Your task to perform on an android device: Go to Reddit.com Image 0: 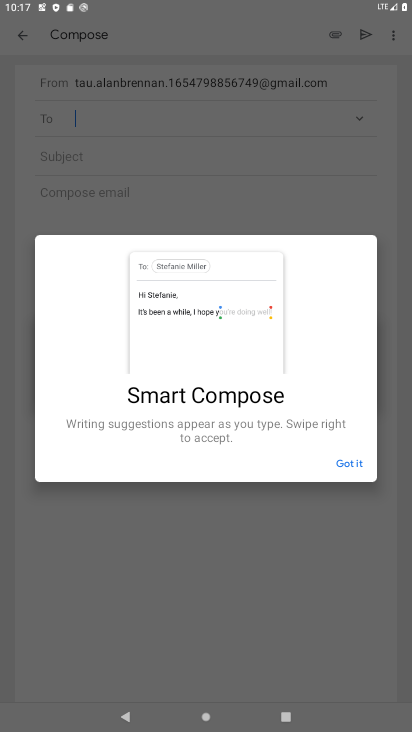
Step 0: press home button
Your task to perform on an android device: Go to Reddit.com Image 1: 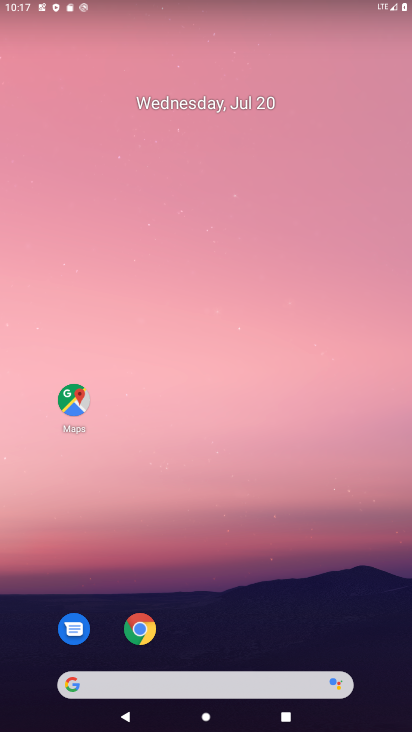
Step 1: click (147, 620)
Your task to perform on an android device: Go to Reddit.com Image 2: 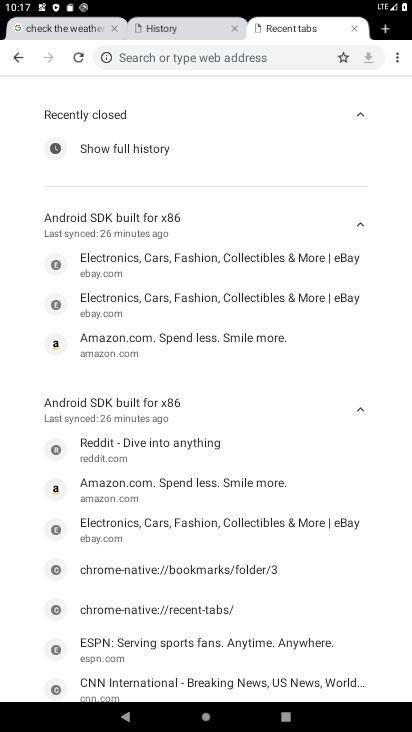
Step 2: click (214, 47)
Your task to perform on an android device: Go to Reddit.com Image 3: 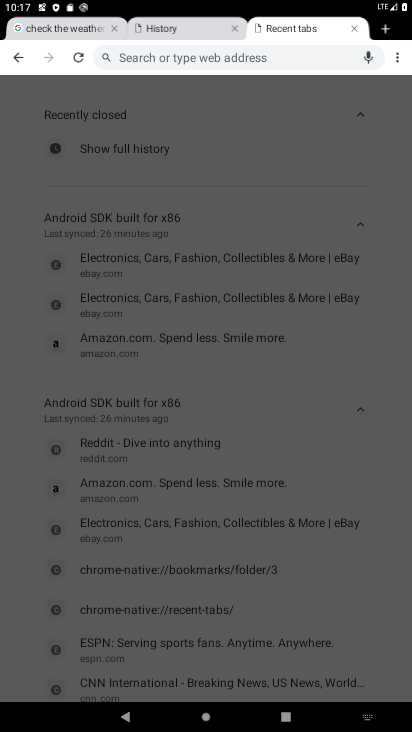
Step 3: type "Reddit.com"
Your task to perform on an android device: Go to Reddit.com Image 4: 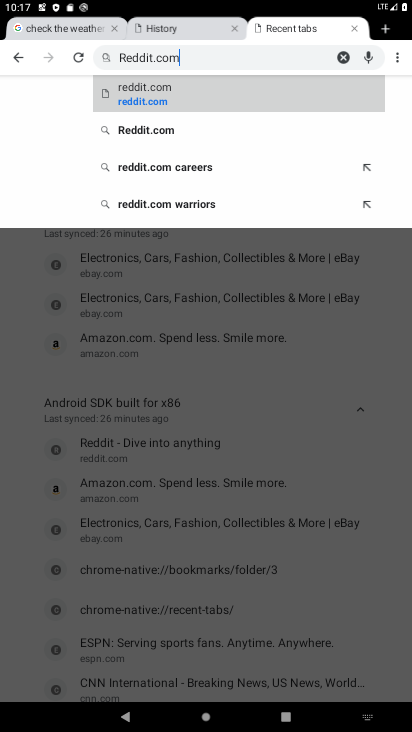
Step 4: type ""
Your task to perform on an android device: Go to Reddit.com Image 5: 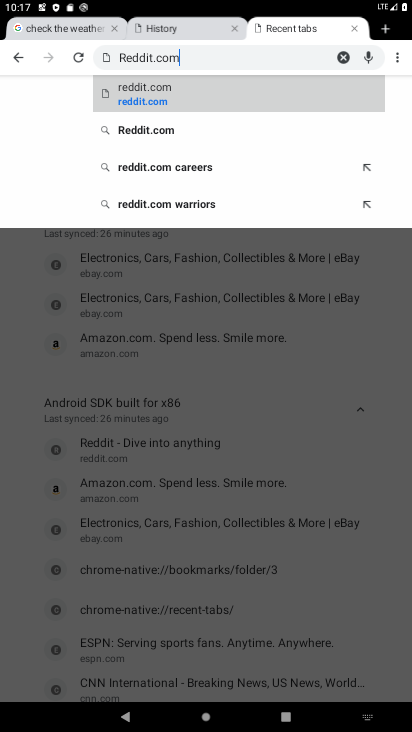
Step 5: click (183, 87)
Your task to perform on an android device: Go to Reddit.com Image 6: 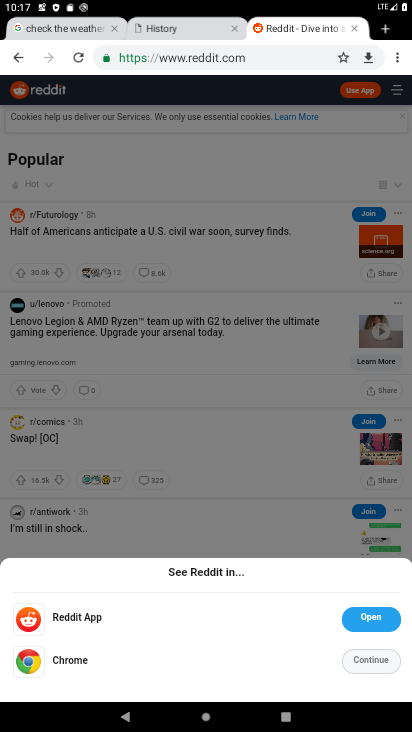
Step 6: task complete